Your task to perform on an android device: turn off improve location accuracy Image 0: 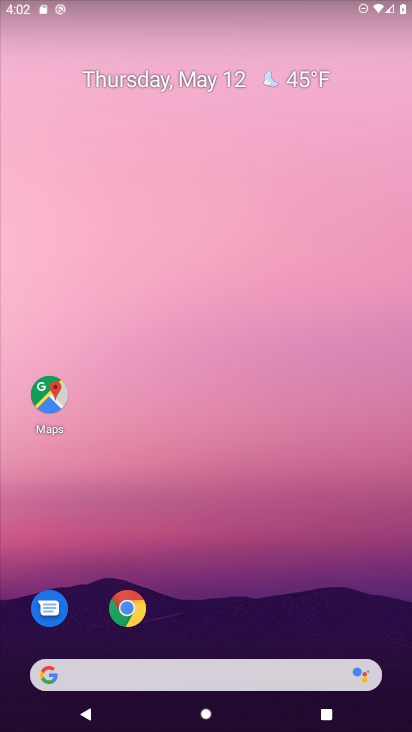
Step 0: drag from (209, 579) to (211, 144)
Your task to perform on an android device: turn off improve location accuracy Image 1: 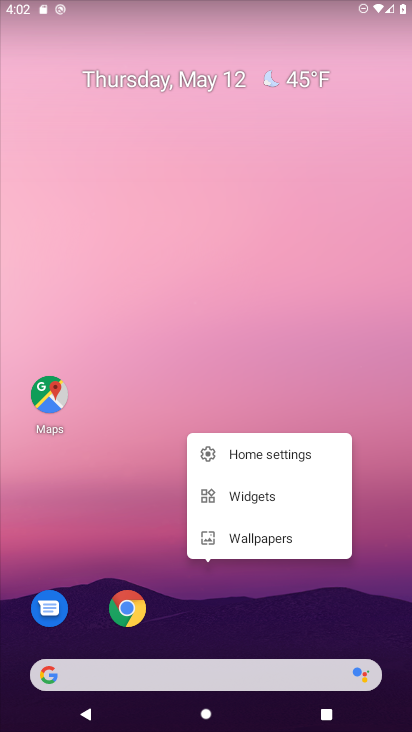
Step 1: click (133, 514)
Your task to perform on an android device: turn off improve location accuracy Image 2: 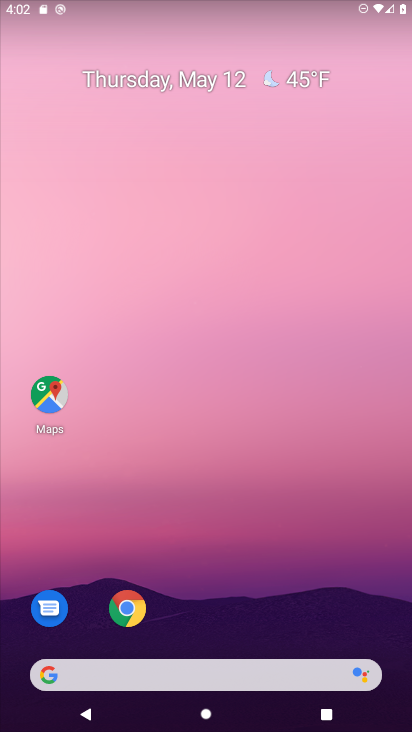
Step 2: drag from (231, 624) to (170, 148)
Your task to perform on an android device: turn off improve location accuracy Image 3: 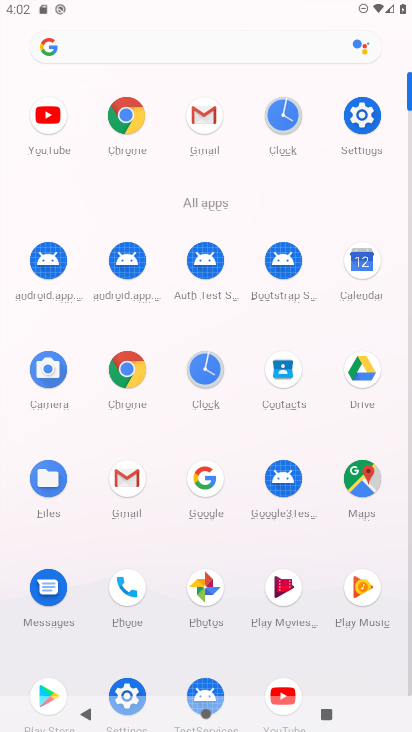
Step 3: click (381, 152)
Your task to perform on an android device: turn off improve location accuracy Image 4: 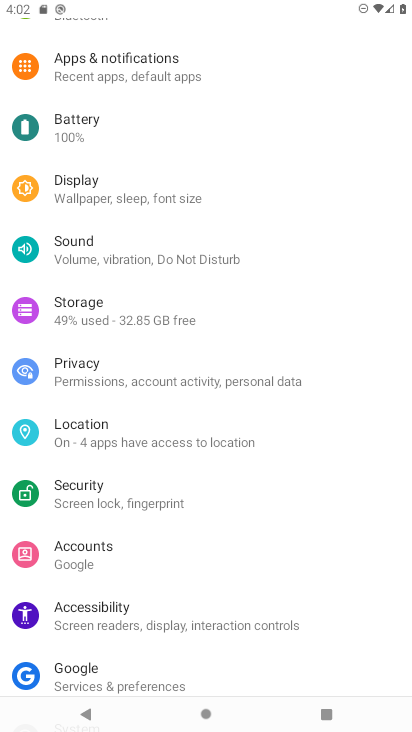
Step 4: click (181, 439)
Your task to perform on an android device: turn off improve location accuracy Image 5: 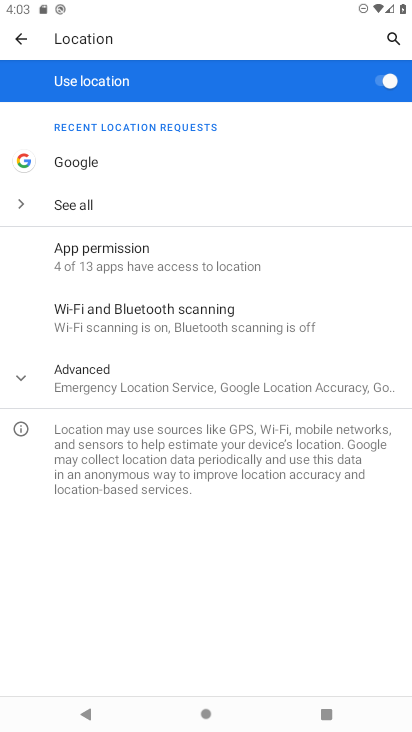
Step 5: click (155, 380)
Your task to perform on an android device: turn off improve location accuracy Image 6: 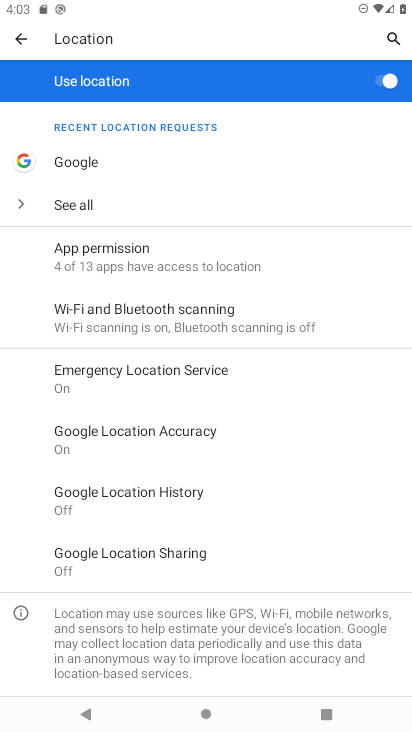
Step 6: click (177, 445)
Your task to perform on an android device: turn off improve location accuracy Image 7: 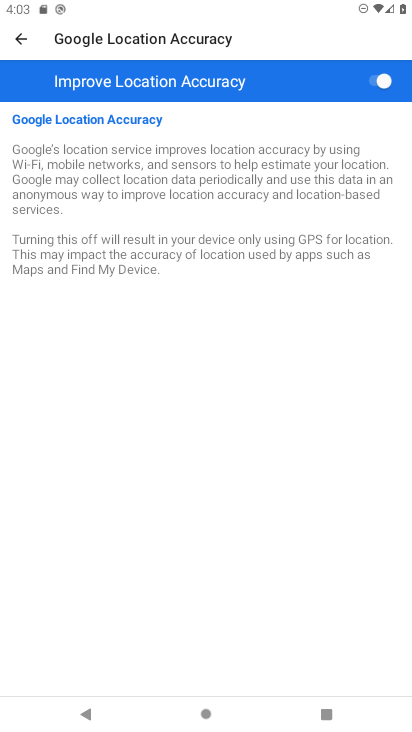
Step 7: click (378, 72)
Your task to perform on an android device: turn off improve location accuracy Image 8: 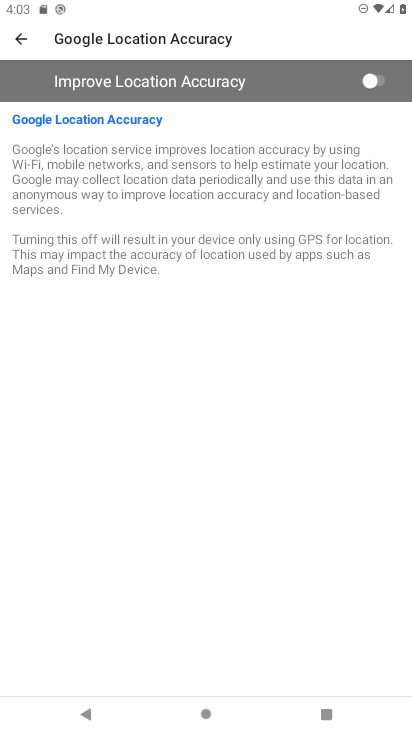
Step 8: task complete